Your task to perform on an android device: change the clock display to show seconds Image 0: 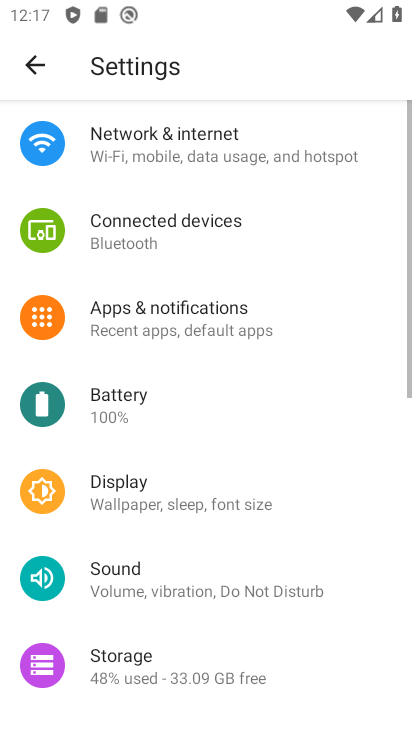
Step 0: press home button
Your task to perform on an android device: change the clock display to show seconds Image 1: 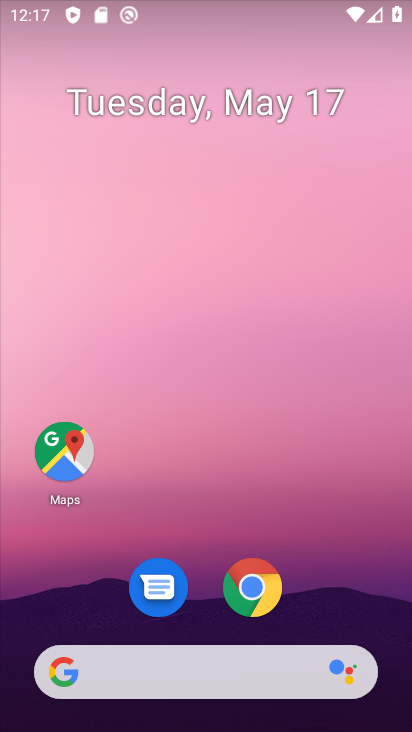
Step 1: drag from (217, 637) to (136, 63)
Your task to perform on an android device: change the clock display to show seconds Image 2: 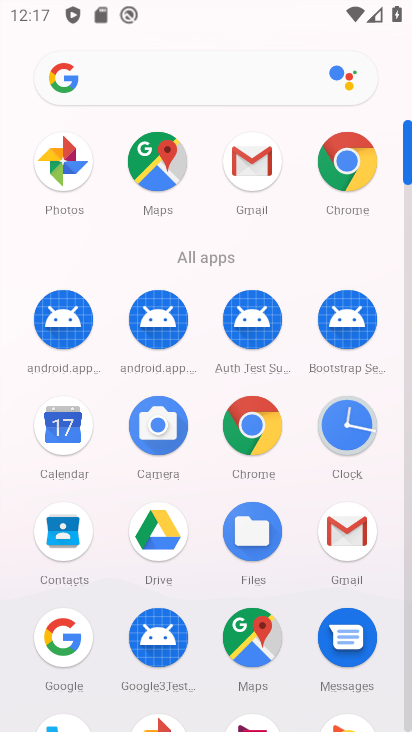
Step 2: click (343, 445)
Your task to perform on an android device: change the clock display to show seconds Image 3: 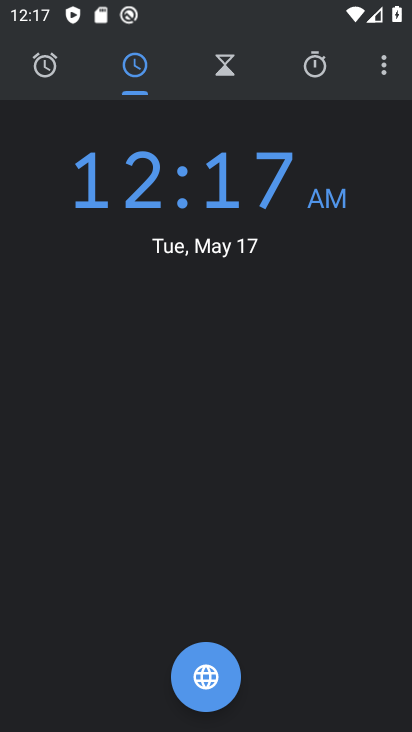
Step 3: click (369, 70)
Your task to perform on an android device: change the clock display to show seconds Image 4: 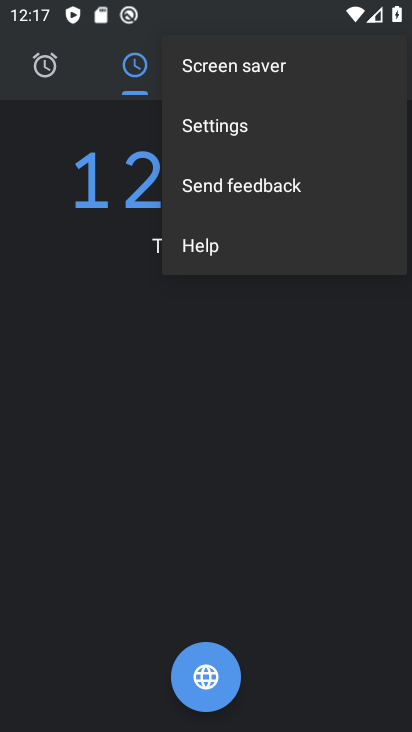
Step 4: click (204, 131)
Your task to perform on an android device: change the clock display to show seconds Image 5: 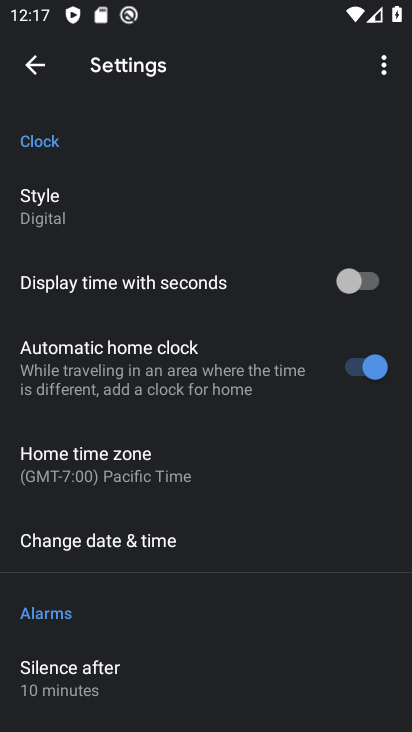
Step 5: click (114, 298)
Your task to perform on an android device: change the clock display to show seconds Image 6: 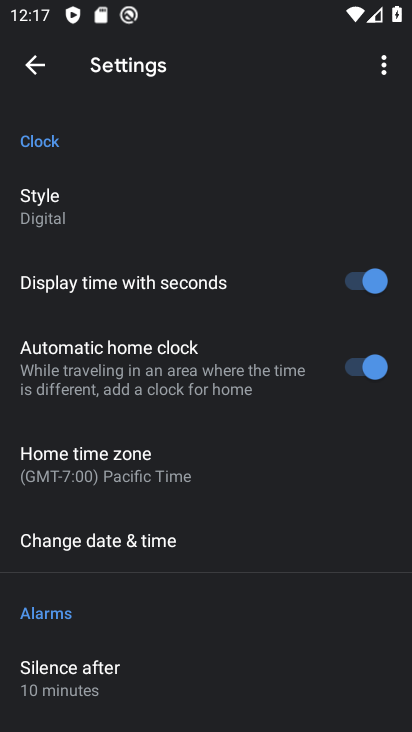
Step 6: task complete